Your task to perform on an android device: Open notification settings Image 0: 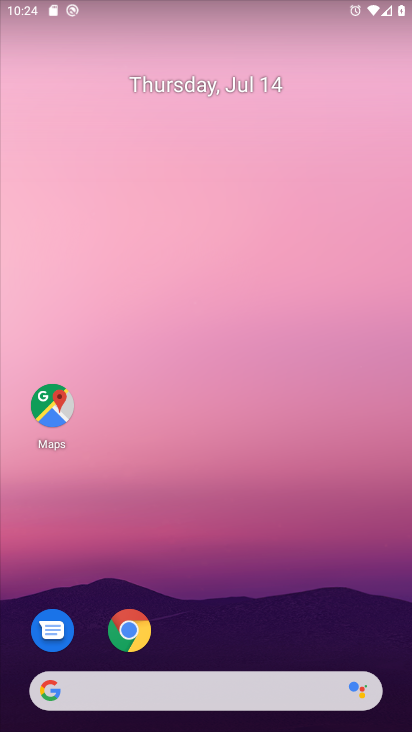
Step 0: drag from (178, 582) to (55, 392)
Your task to perform on an android device: Open notification settings Image 1: 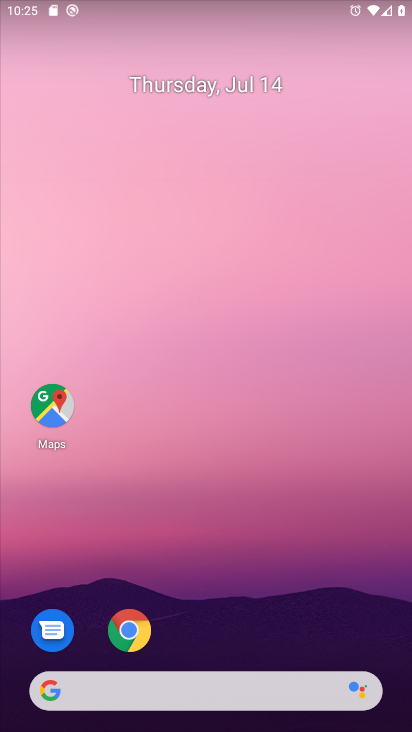
Step 1: drag from (193, 653) to (315, 8)
Your task to perform on an android device: Open notification settings Image 2: 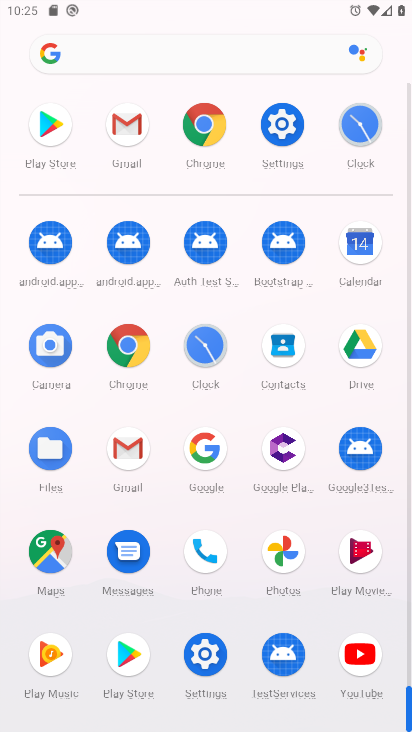
Step 2: click (198, 655)
Your task to perform on an android device: Open notification settings Image 3: 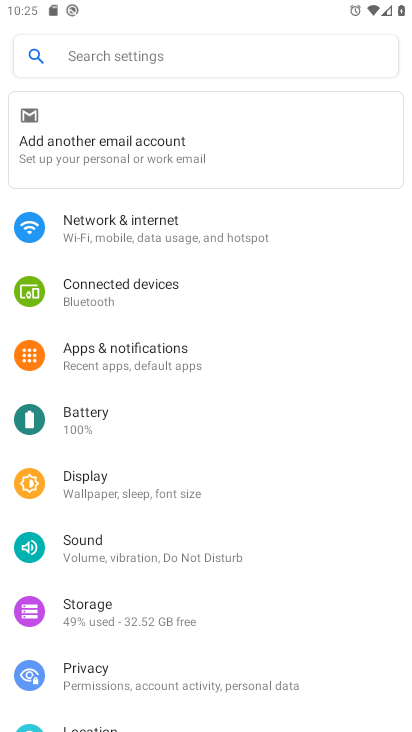
Step 3: click (127, 357)
Your task to perform on an android device: Open notification settings Image 4: 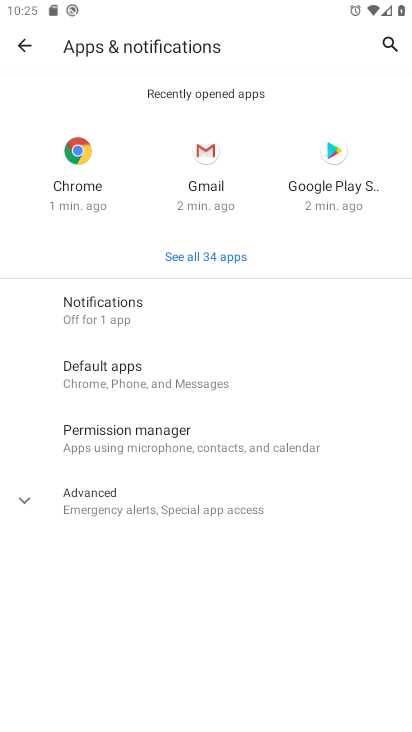
Step 4: click (133, 320)
Your task to perform on an android device: Open notification settings Image 5: 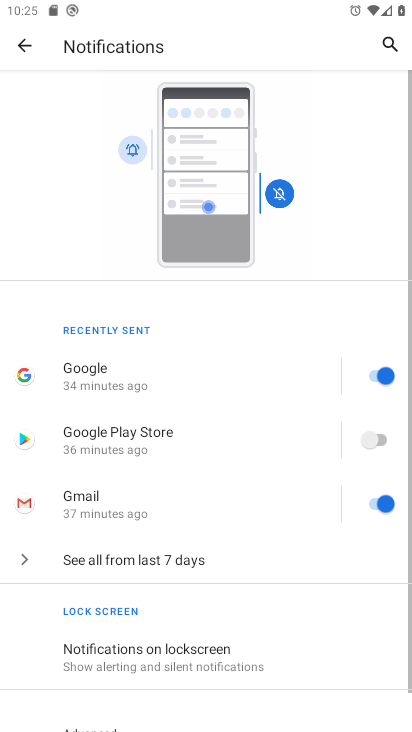
Step 5: task complete